Your task to perform on an android device: Search for the best books of all time on Goodreads Image 0: 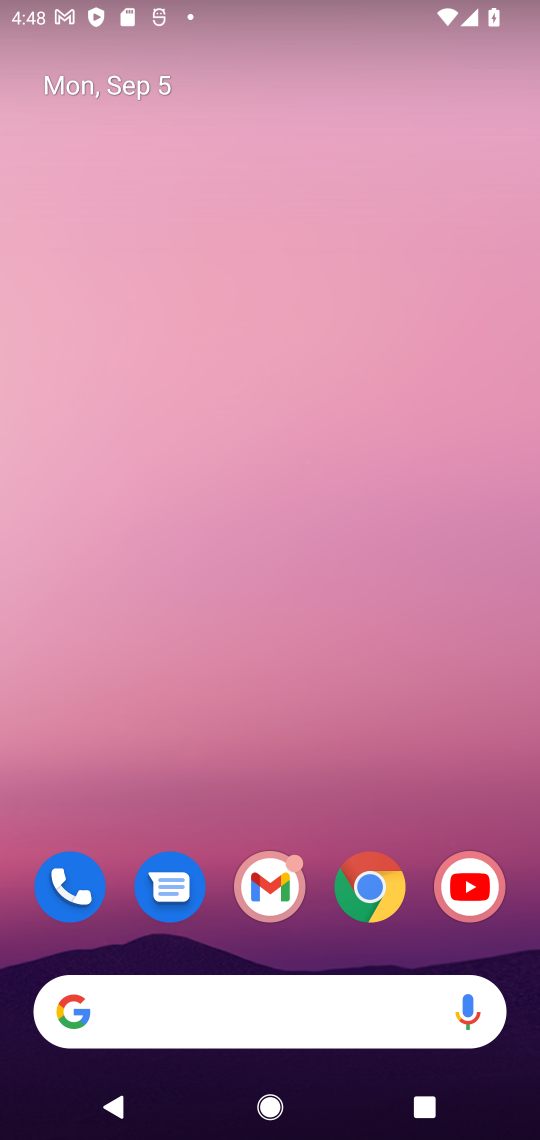
Step 0: drag from (375, 510) to (479, 0)
Your task to perform on an android device: Search for the best books of all time on Goodreads Image 1: 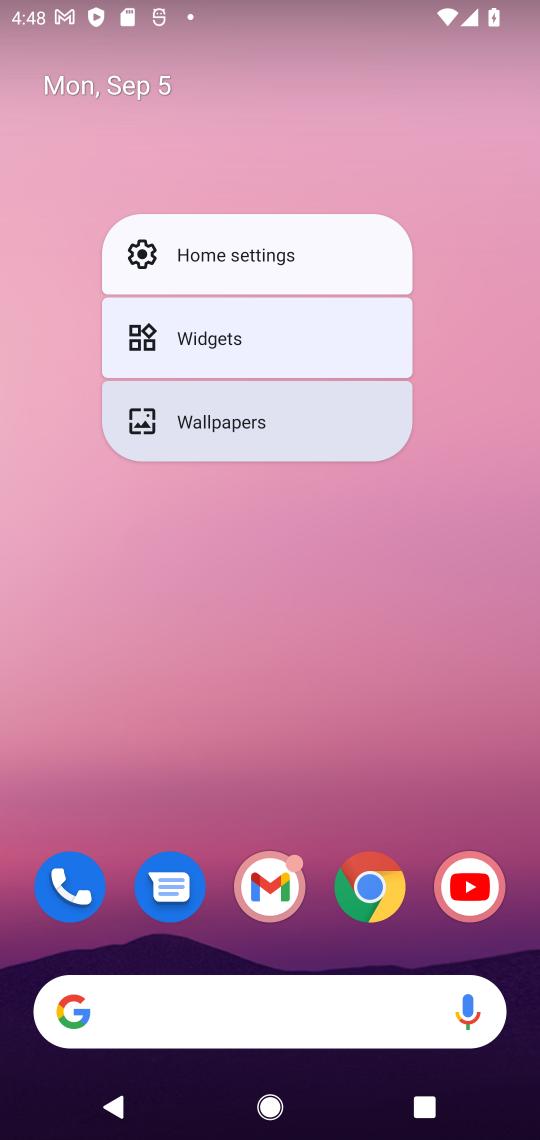
Step 1: click (255, 944)
Your task to perform on an android device: Search for the best books of all time on Goodreads Image 2: 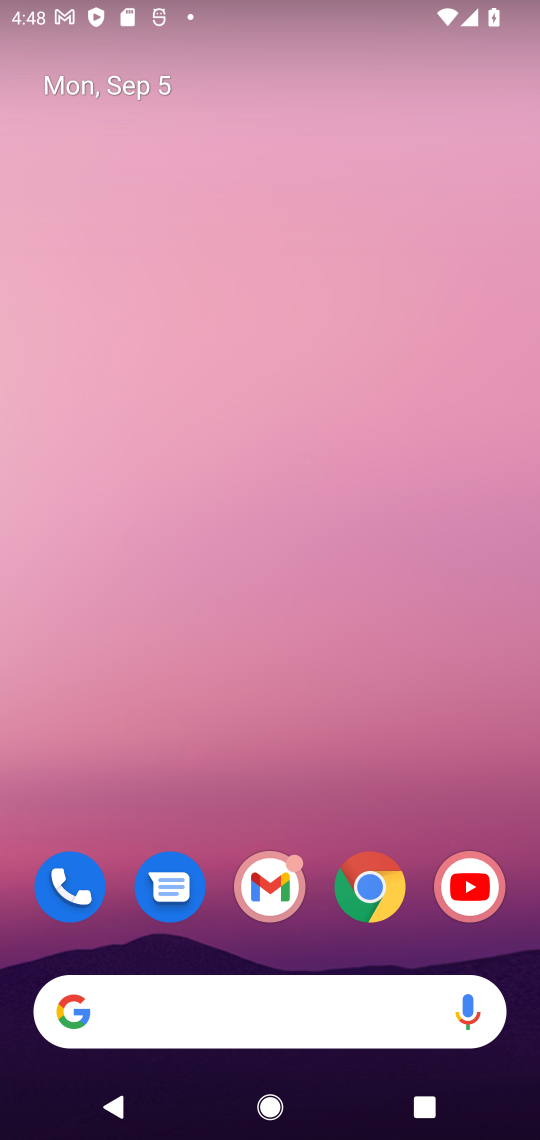
Step 2: drag from (234, 624) to (326, 78)
Your task to perform on an android device: Search for the best books of all time on Goodreads Image 3: 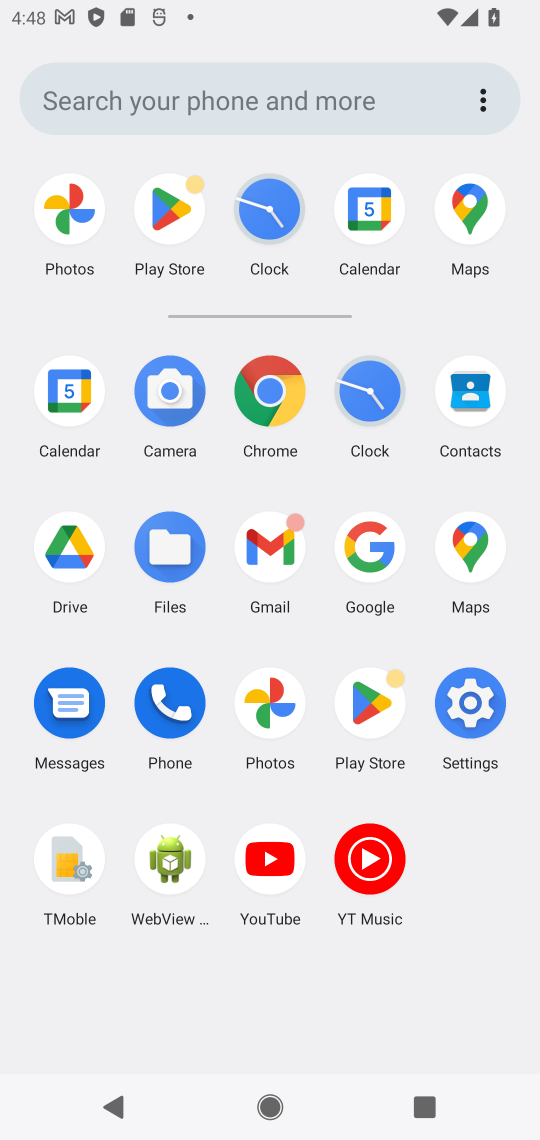
Step 3: click (283, 381)
Your task to perform on an android device: Search for the best books of all time on Goodreads Image 4: 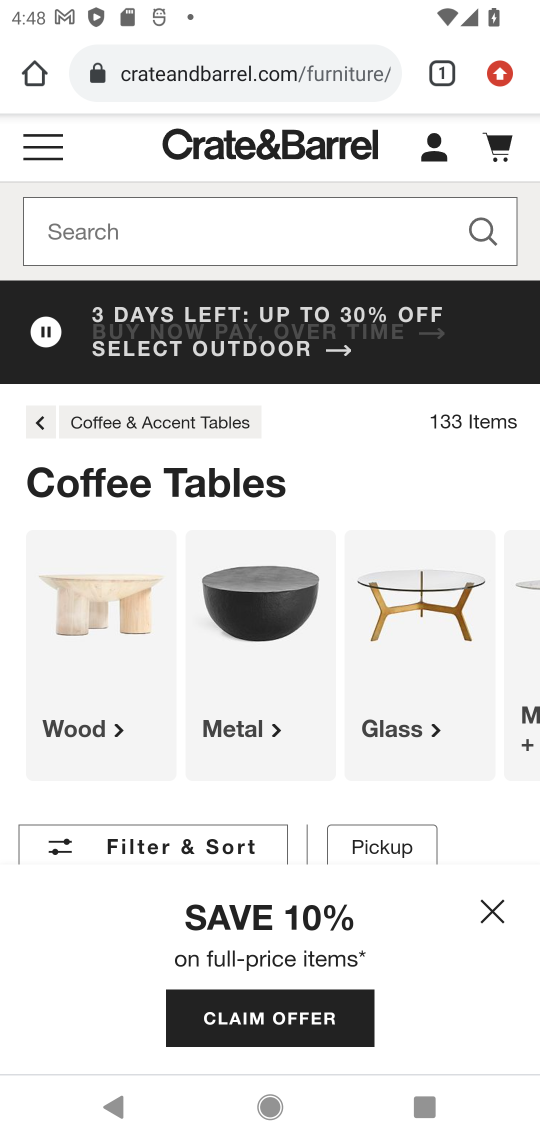
Step 4: click (280, 83)
Your task to perform on an android device: Search for the best books of all time on Goodreads Image 5: 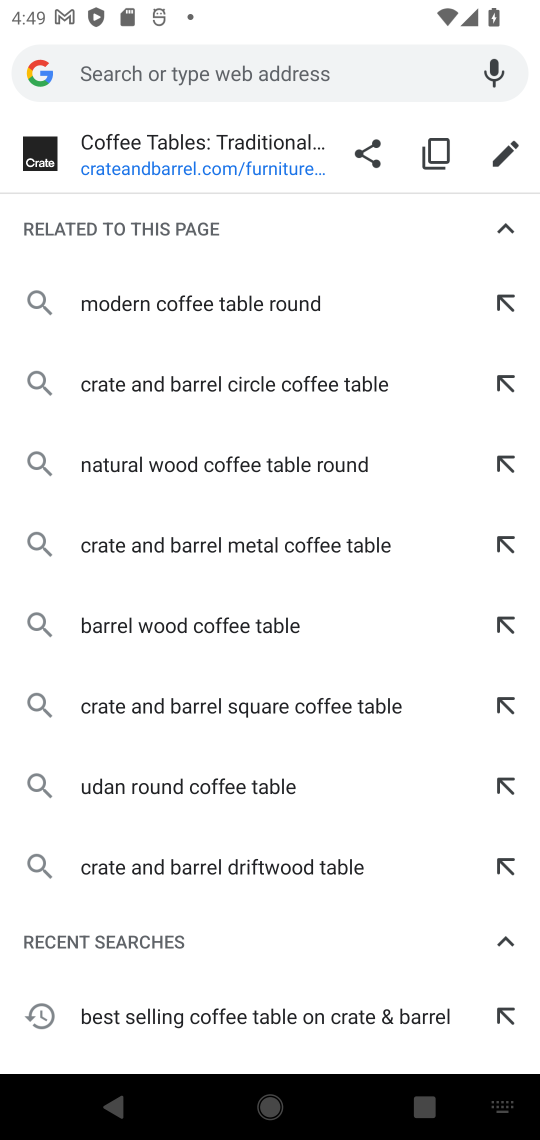
Step 5: type "the best books of all time on Goodreads"
Your task to perform on an android device: Search for the best books of all time on Goodreads Image 6: 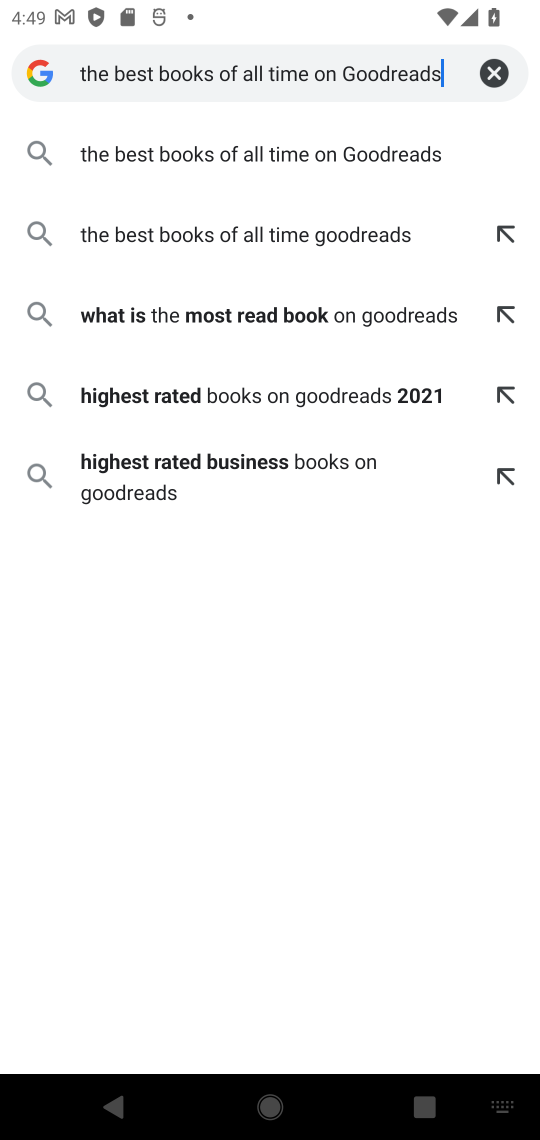
Step 6: press enter
Your task to perform on an android device: Search for the best books of all time on Goodreads Image 7: 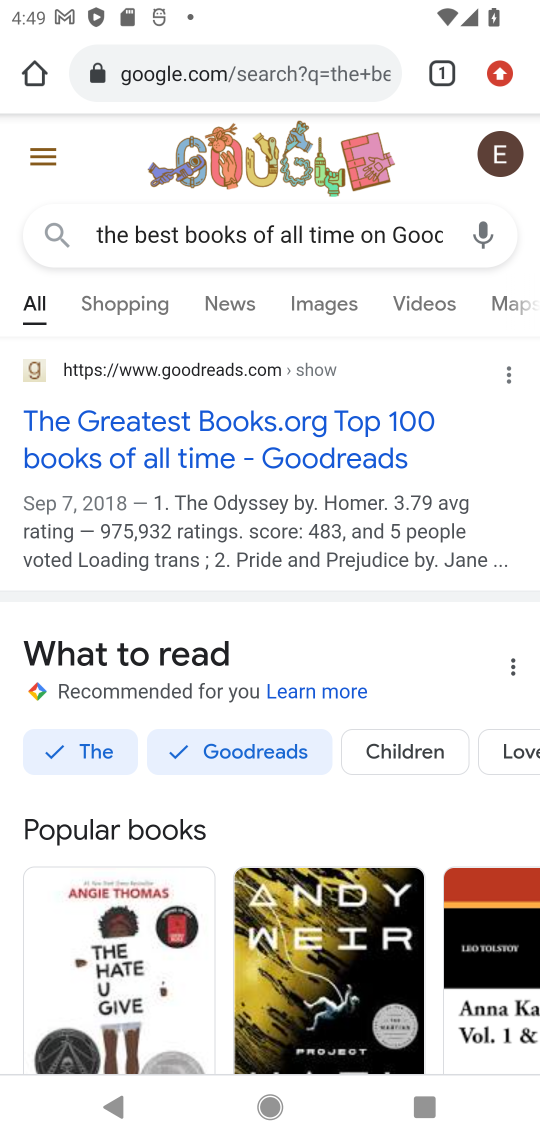
Step 7: click (272, 419)
Your task to perform on an android device: Search for the best books of all time on Goodreads Image 8: 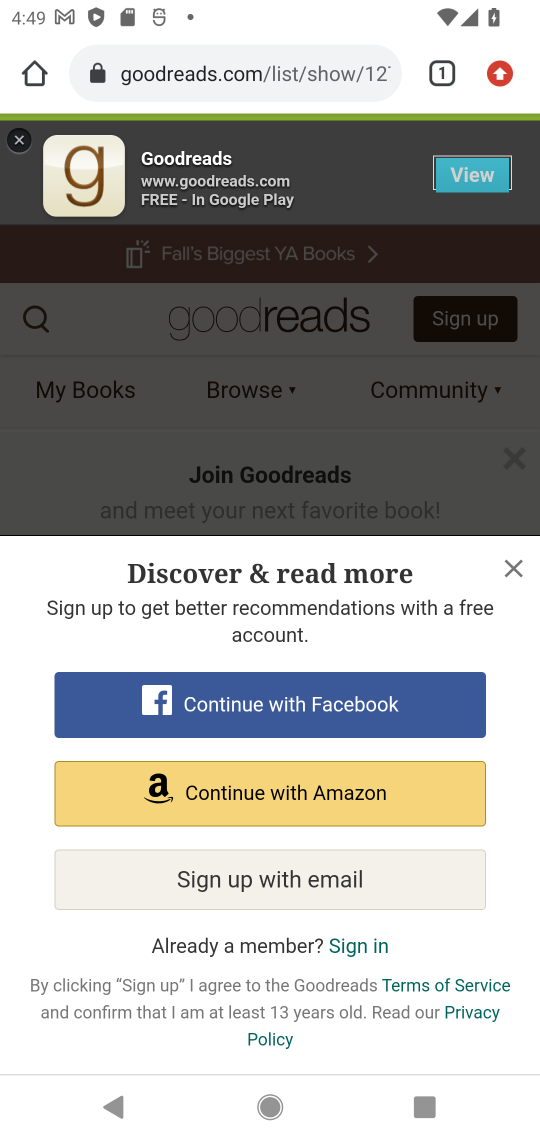
Step 8: click (512, 556)
Your task to perform on an android device: Search for the best books of all time on Goodreads Image 9: 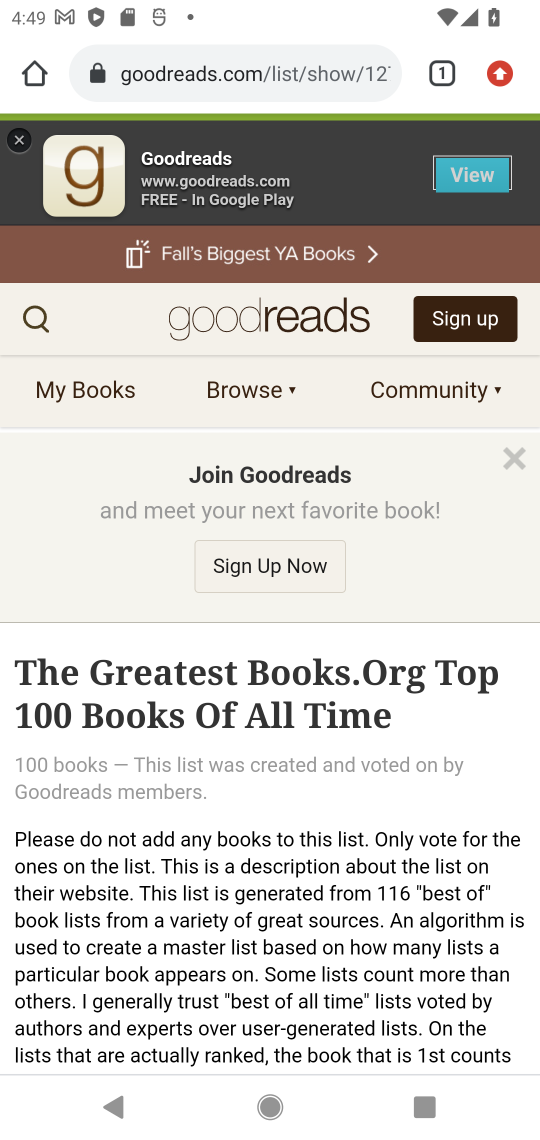
Step 9: task complete